Your task to perform on an android device: read, delete, or share a saved page in the chrome app Image 0: 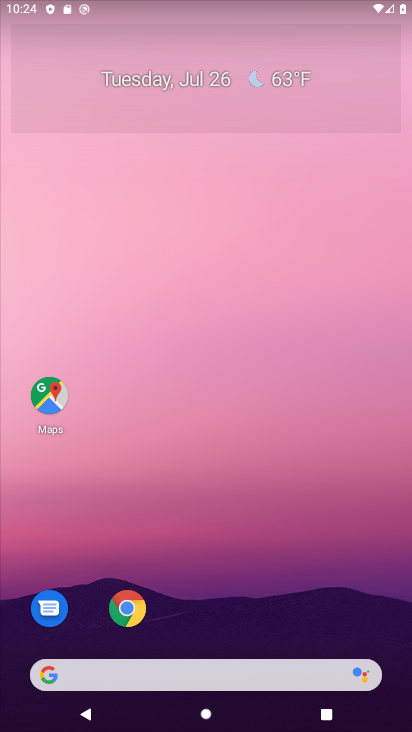
Step 0: press home button
Your task to perform on an android device: read, delete, or share a saved page in the chrome app Image 1: 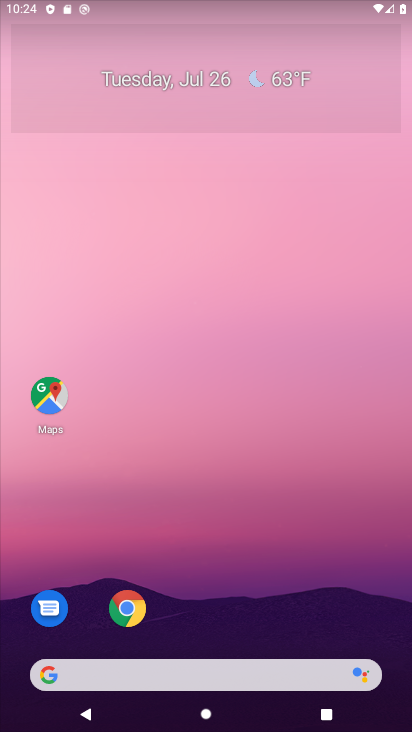
Step 1: drag from (224, 581) to (168, 4)
Your task to perform on an android device: read, delete, or share a saved page in the chrome app Image 2: 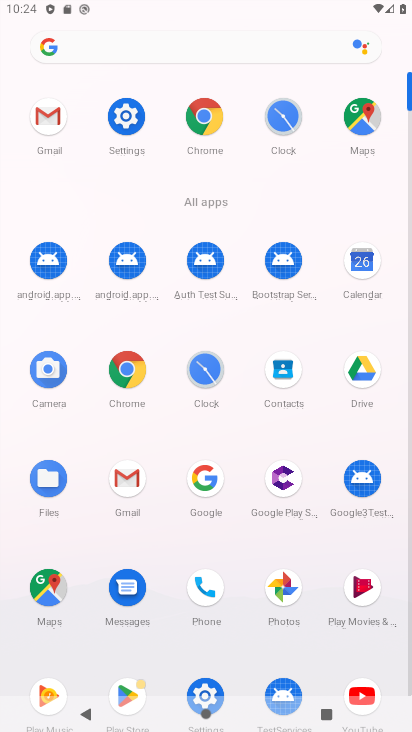
Step 2: click (197, 129)
Your task to perform on an android device: read, delete, or share a saved page in the chrome app Image 3: 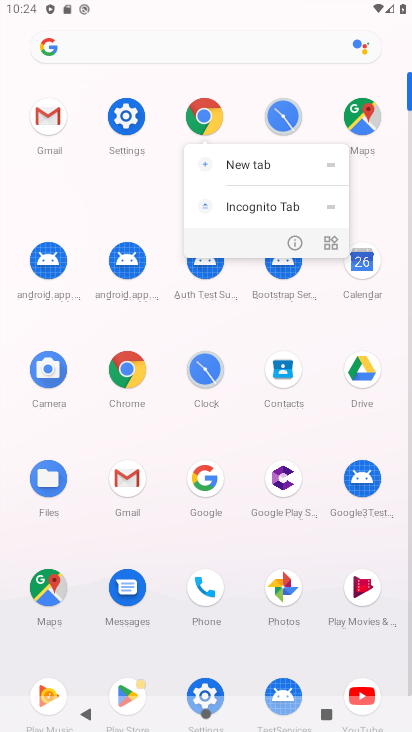
Step 3: click (201, 118)
Your task to perform on an android device: read, delete, or share a saved page in the chrome app Image 4: 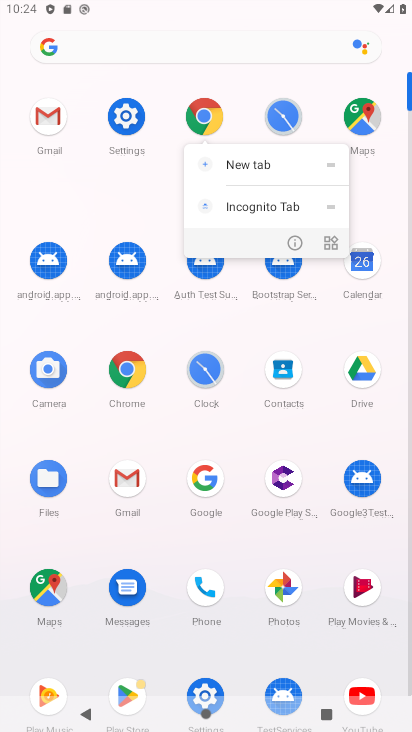
Step 4: click (208, 122)
Your task to perform on an android device: read, delete, or share a saved page in the chrome app Image 5: 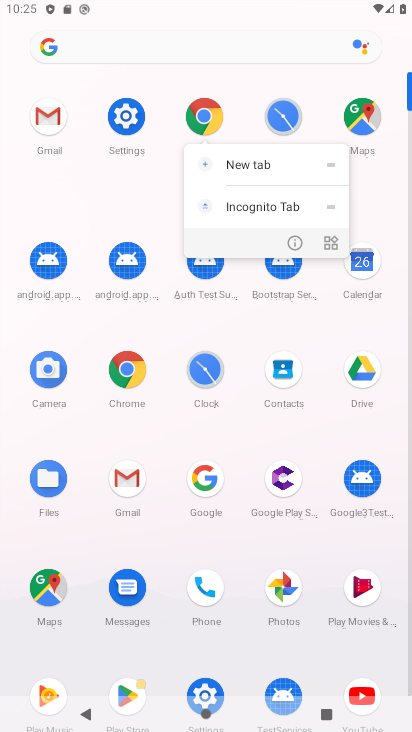
Step 5: click (208, 111)
Your task to perform on an android device: read, delete, or share a saved page in the chrome app Image 6: 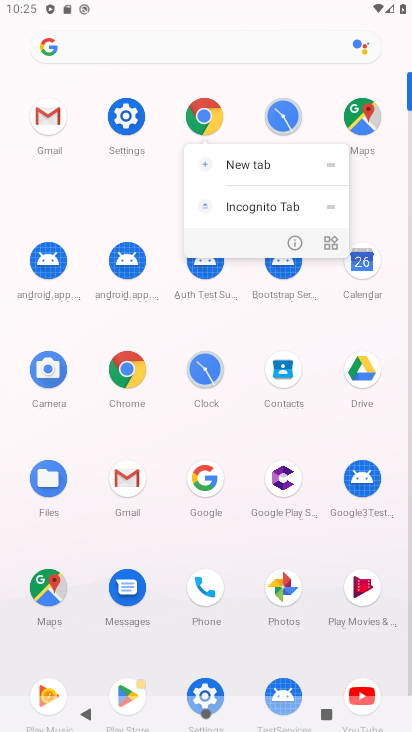
Step 6: click (208, 111)
Your task to perform on an android device: read, delete, or share a saved page in the chrome app Image 7: 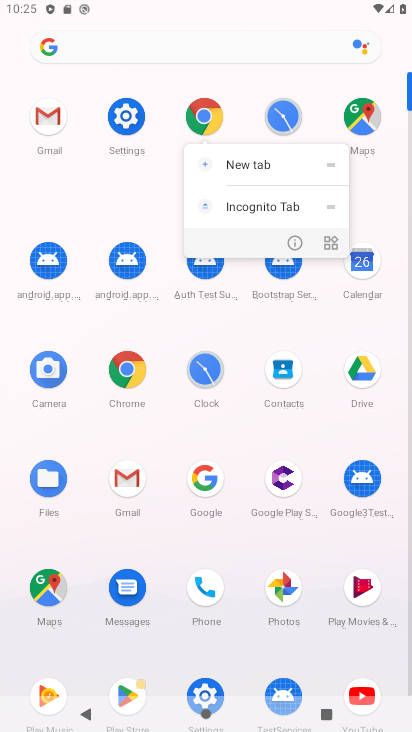
Step 7: click (201, 116)
Your task to perform on an android device: read, delete, or share a saved page in the chrome app Image 8: 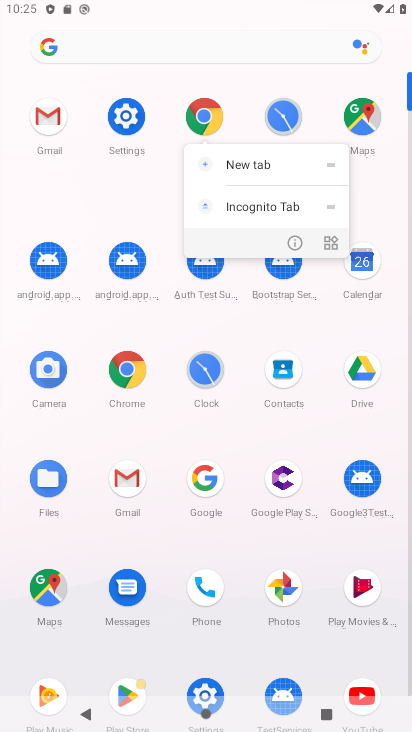
Step 8: click (205, 123)
Your task to perform on an android device: read, delete, or share a saved page in the chrome app Image 9: 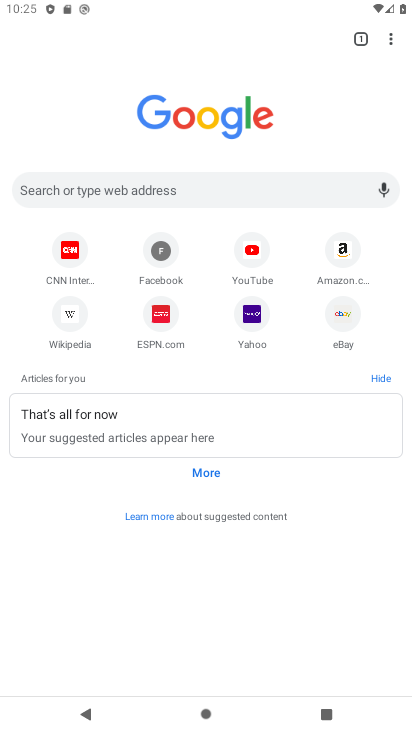
Step 9: drag from (391, 40) to (260, 255)
Your task to perform on an android device: read, delete, or share a saved page in the chrome app Image 10: 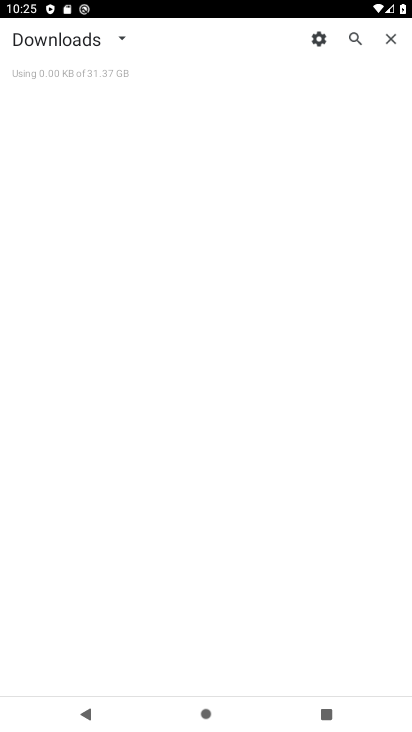
Step 10: click (116, 39)
Your task to perform on an android device: read, delete, or share a saved page in the chrome app Image 11: 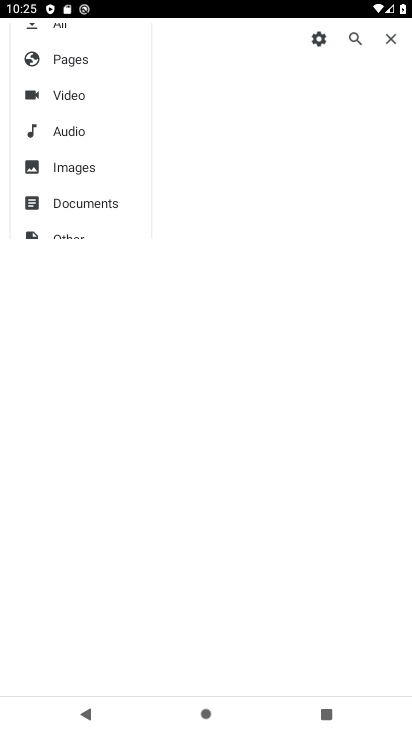
Step 11: click (116, 39)
Your task to perform on an android device: read, delete, or share a saved page in the chrome app Image 12: 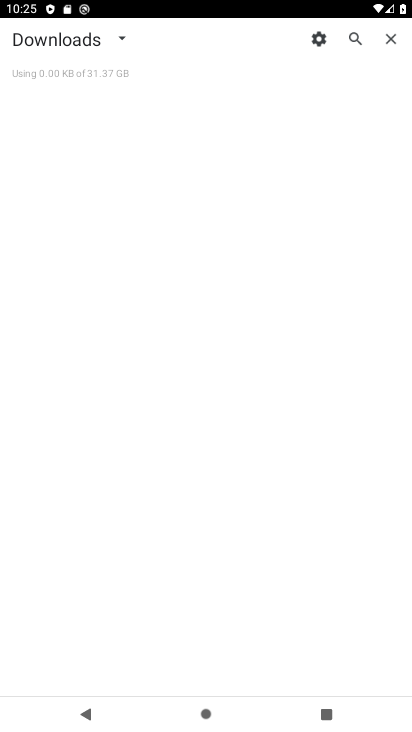
Step 12: click (68, 80)
Your task to perform on an android device: read, delete, or share a saved page in the chrome app Image 13: 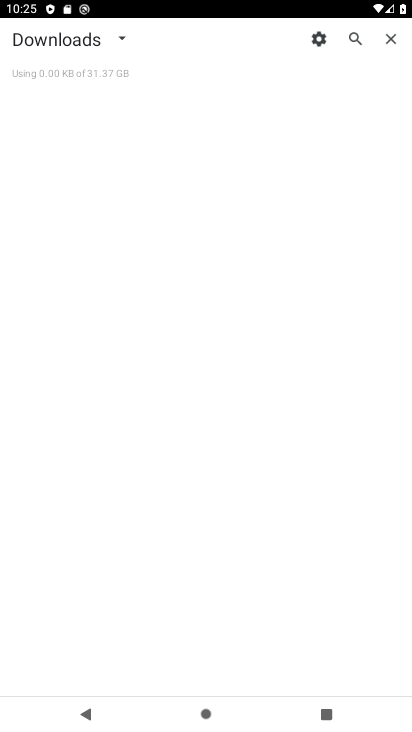
Step 13: task complete